Your task to perform on an android device: add a label to a message in the gmail app Image 0: 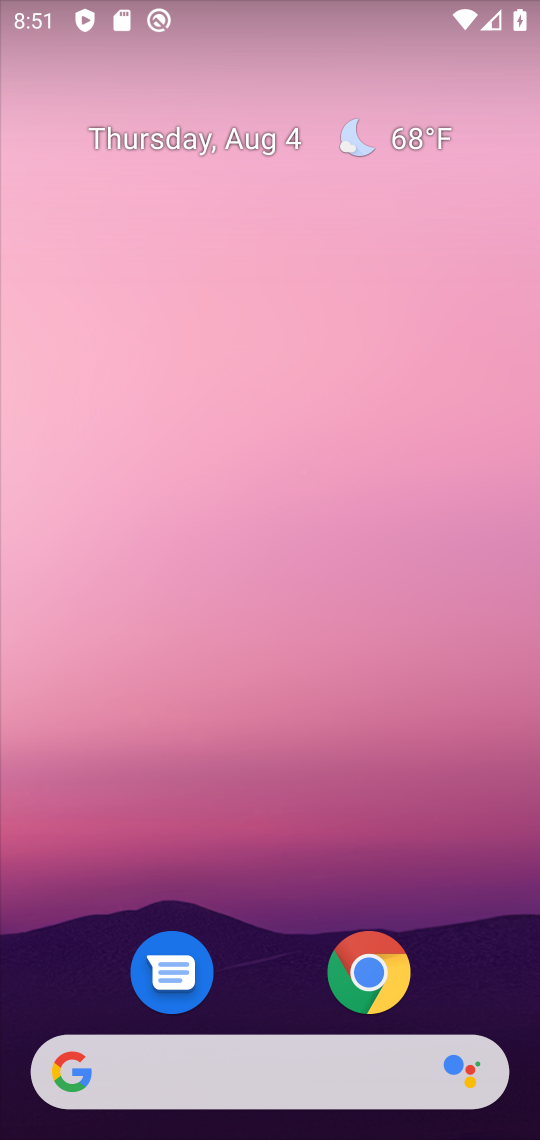
Step 0: drag from (275, 835) to (327, 35)
Your task to perform on an android device: add a label to a message in the gmail app Image 1: 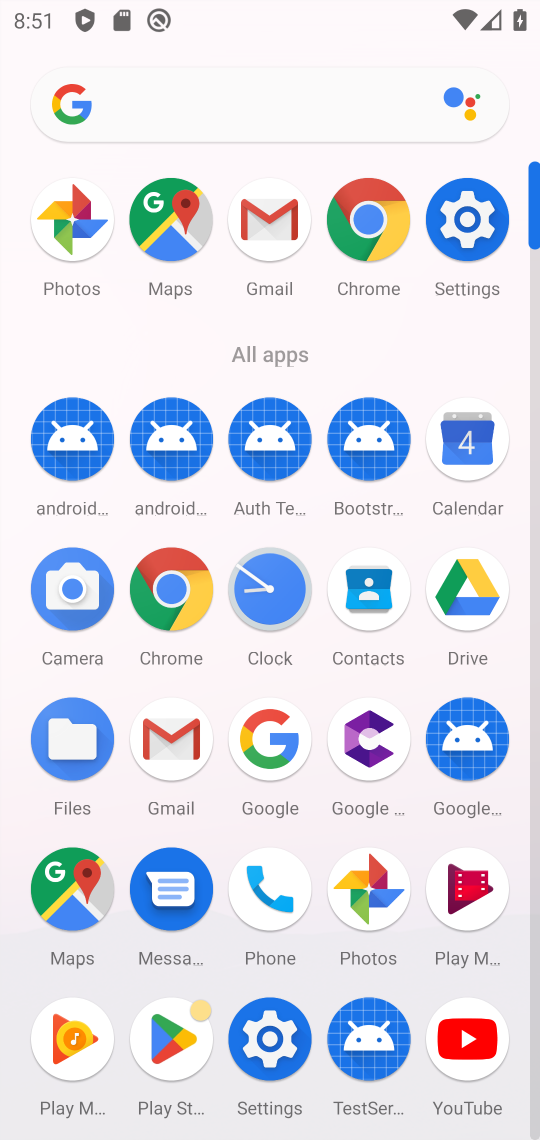
Step 1: click (288, 227)
Your task to perform on an android device: add a label to a message in the gmail app Image 2: 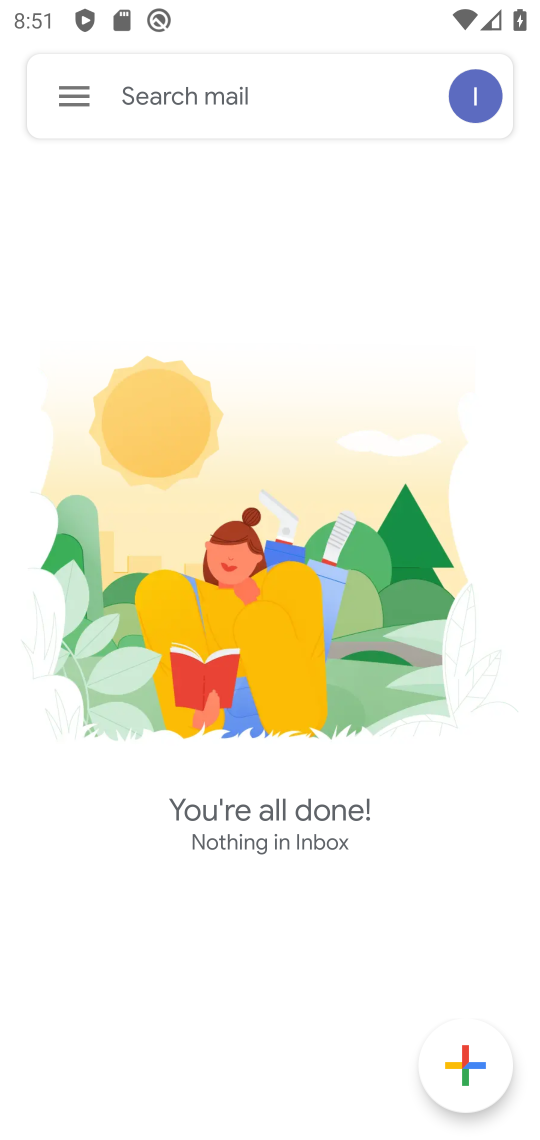
Step 2: click (77, 94)
Your task to perform on an android device: add a label to a message in the gmail app Image 3: 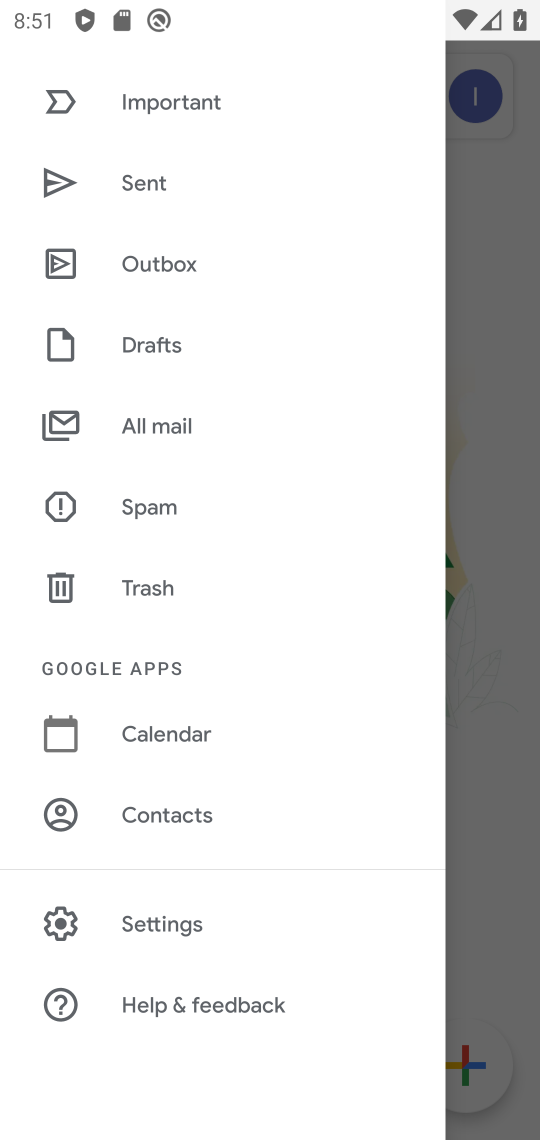
Step 3: click (114, 416)
Your task to perform on an android device: add a label to a message in the gmail app Image 4: 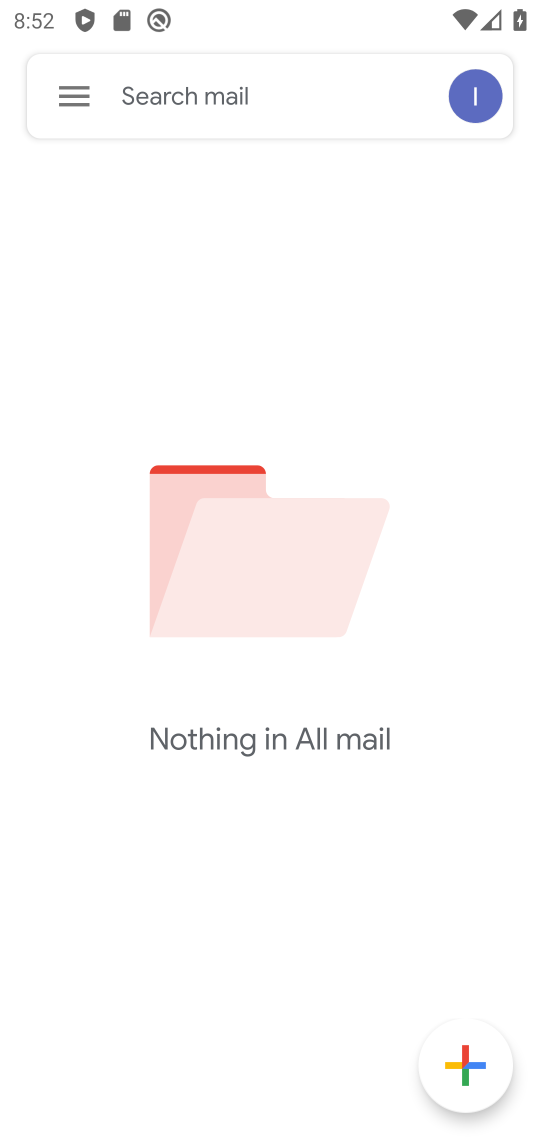
Step 4: task complete